Your task to perform on an android device: Open my contact list Image 0: 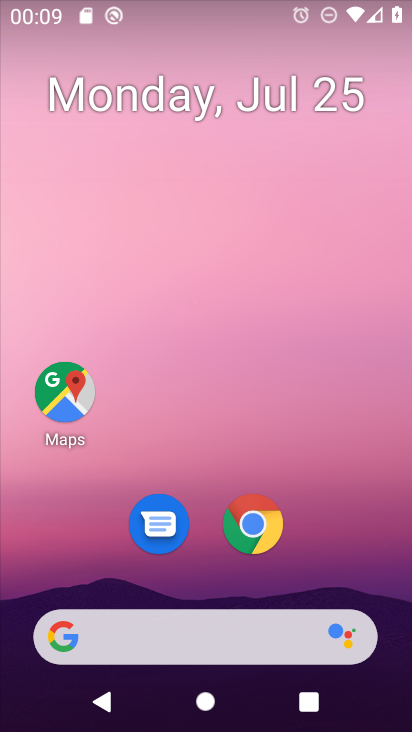
Step 0: press home button
Your task to perform on an android device: Open my contact list Image 1: 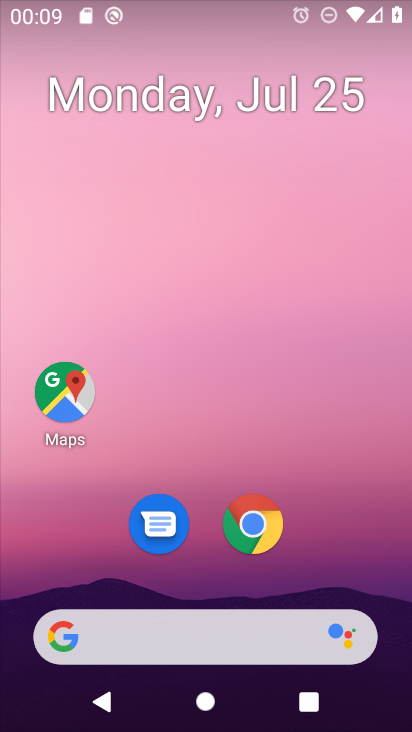
Step 1: drag from (188, 643) to (326, 140)
Your task to perform on an android device: Open my contact list Image 2: 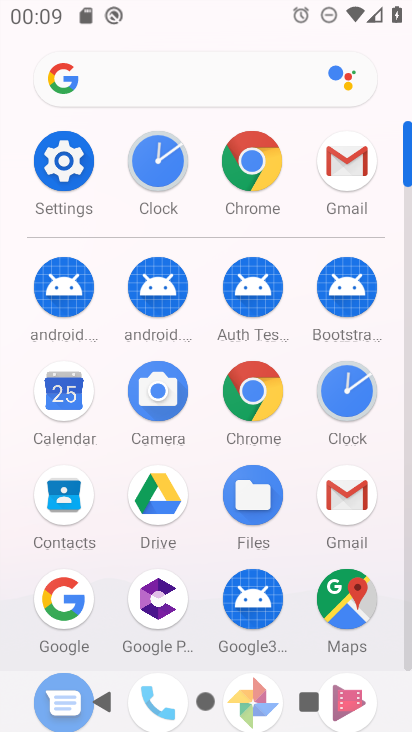
Step 2: click (69, 498)
Your task to perform on an android device: Open my contact list Image 3: 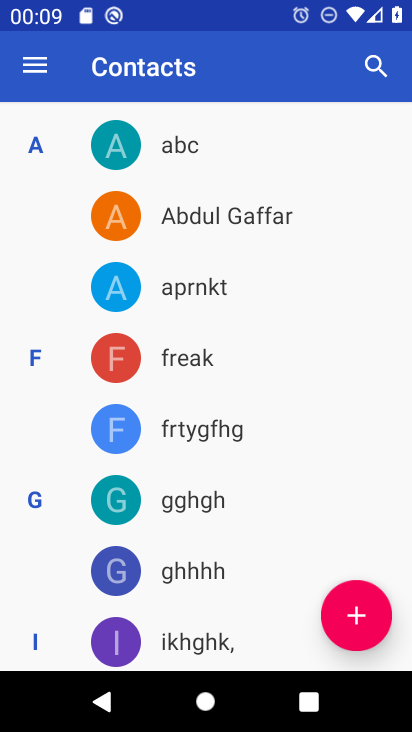
Step 3: task complete